Your task to perform on an android device: Open the settings Image 0: 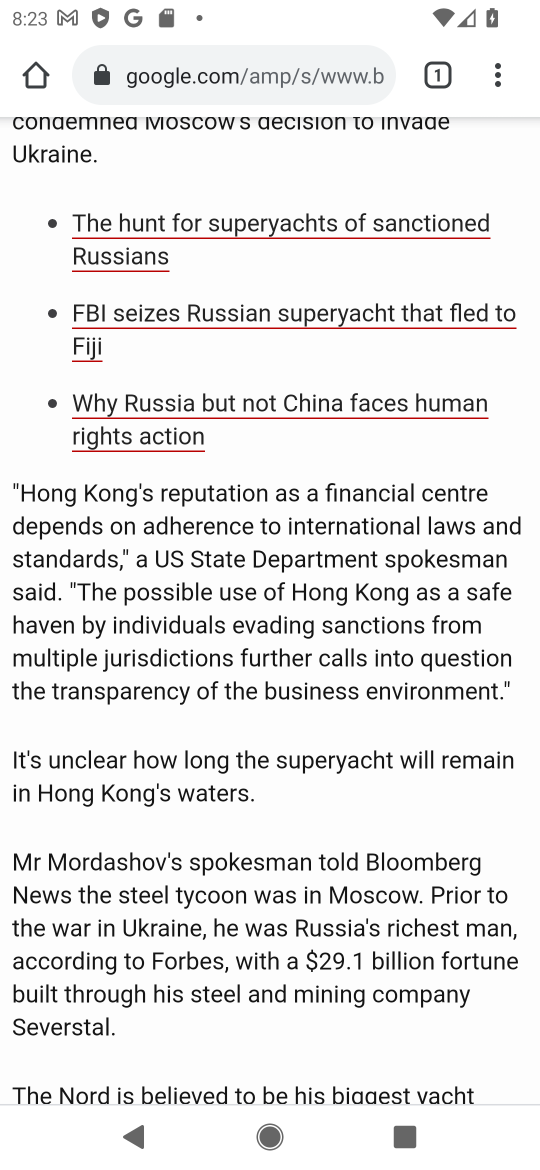
Step 0: press home button
Your task to perform on an android device: Open the settings Image 1: 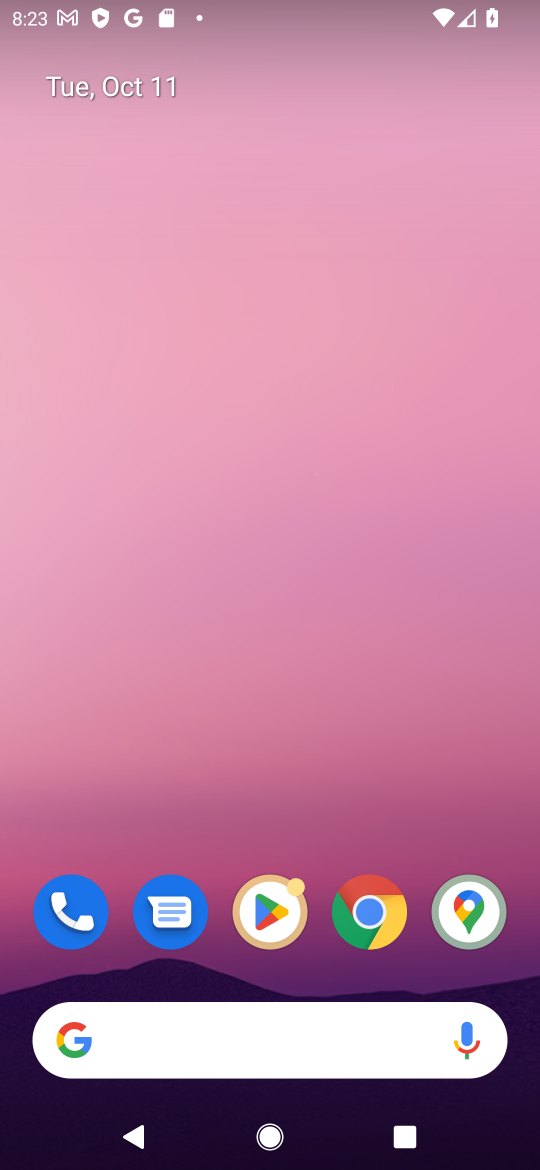
Step 1: drag from (418, 943) to (400, 173)
Your task to perform on an android device: Open the settings Image 2: 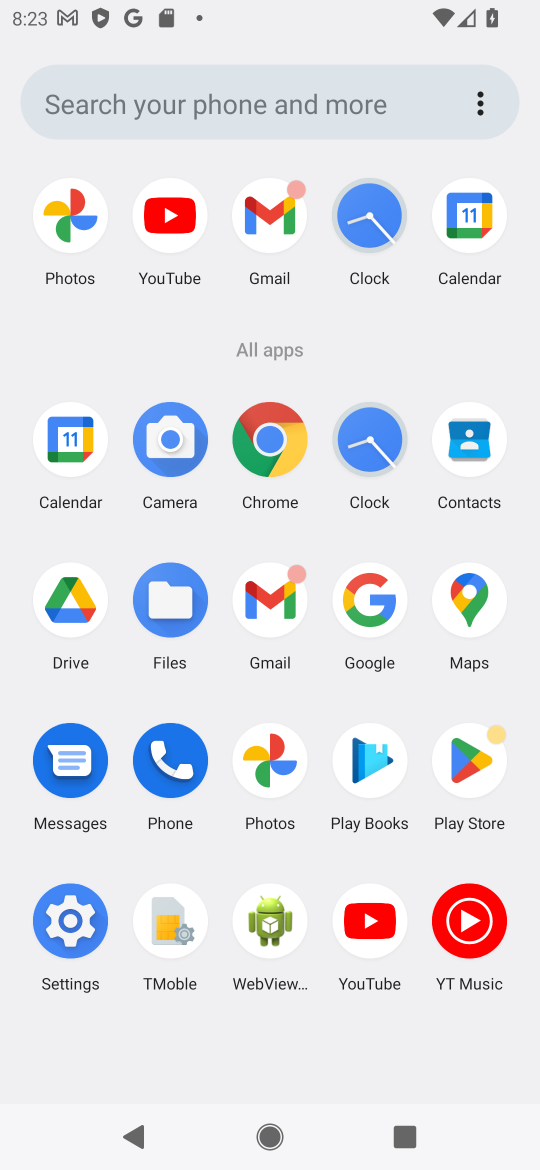
Step 2: click (69, 923)
Your task to perform on an android device: Open the settings Image 3: 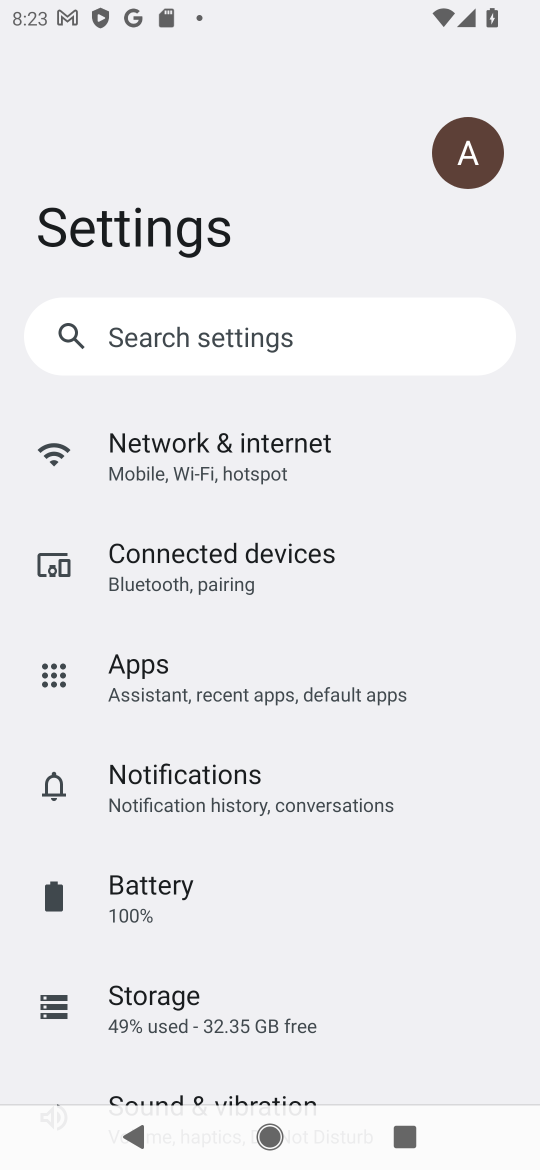
Step 3: task complete